Your task to perform on an android device: see creations saved in the google photos Image 0: 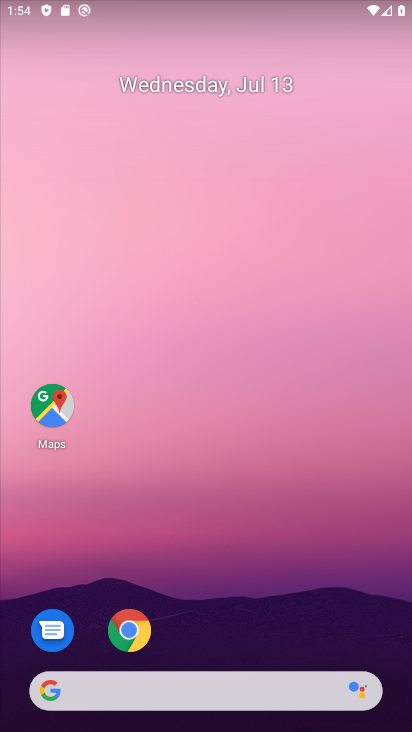
Step 0: drag from (277, 658) to (157, 221)
Your task to perform on an android device: see creations saved in the google photos Image 1: 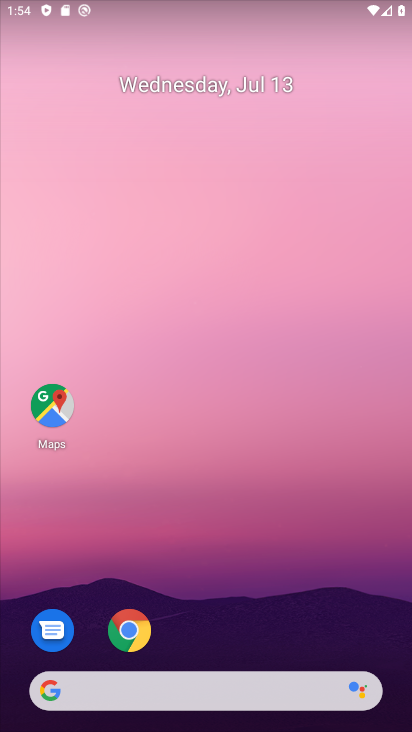
Step 1: drag from (229, 399) to (186, 95)
Your task to perform on an android device: see creations saved in the google photos Image 2: 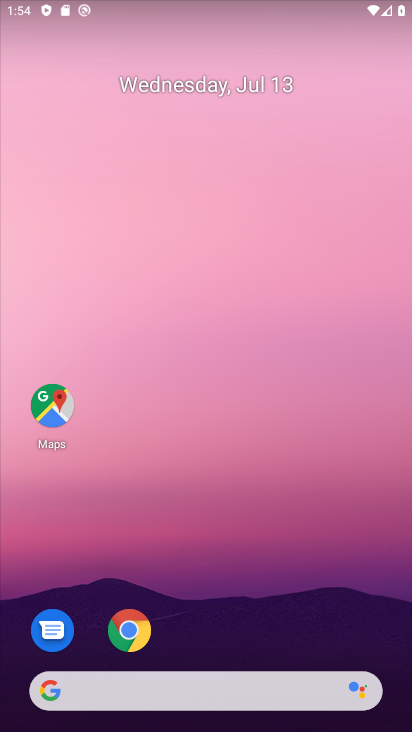
Step 2: drag from (238, 370) to (162, 25)
Your task to perform on an android device: see creations saved in the google photos Image 3: 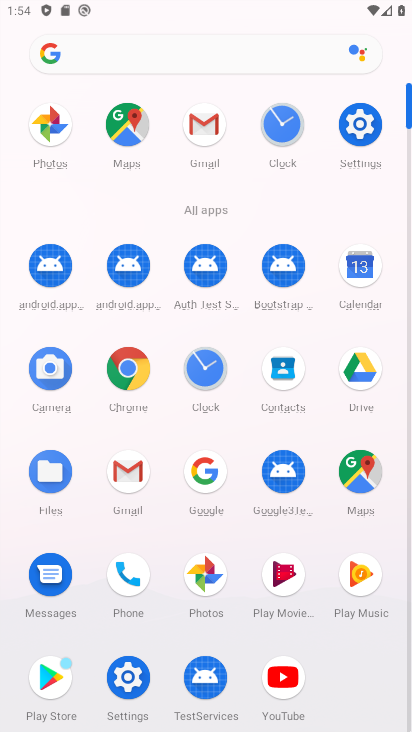
Step 3: drag from (164, 19) to (208, 87)
Your task to perform on an android device: see creations saved in the google photos Image 4: 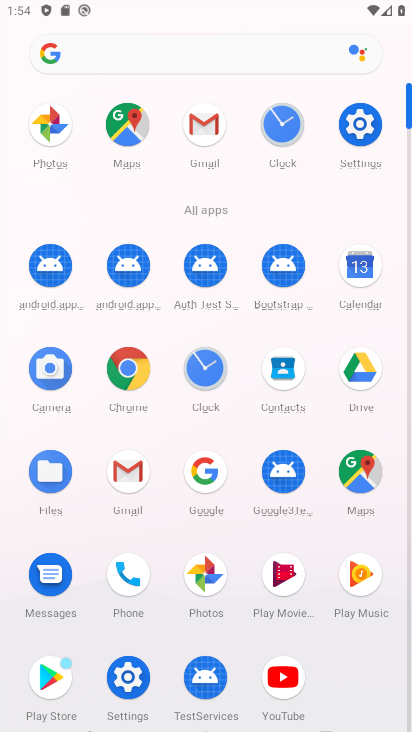
Step 4: click (197, 574)
Your task to perform on an android device: see creations saved in the google photos Image 5: 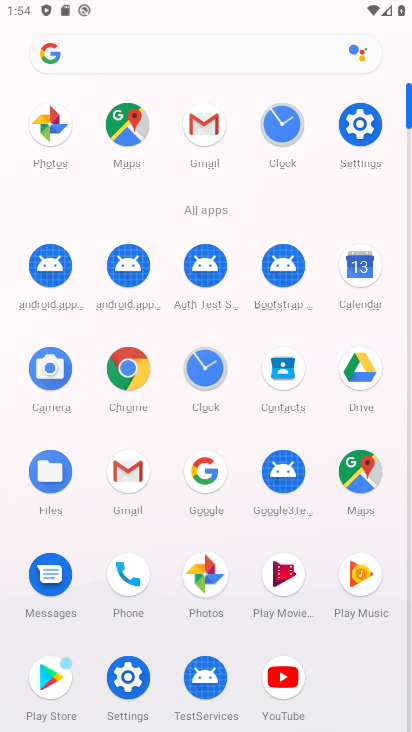
Step 5: click (200, 572)
Your task to perform on an android device: see creations saved in the google photos Image 6: 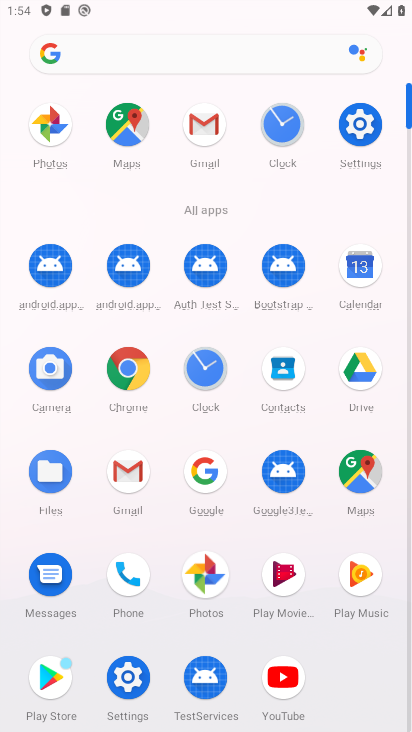
Step 6: click (202, 570)
Your task to perform on an android device: see creations saved in the google photos Image 7: 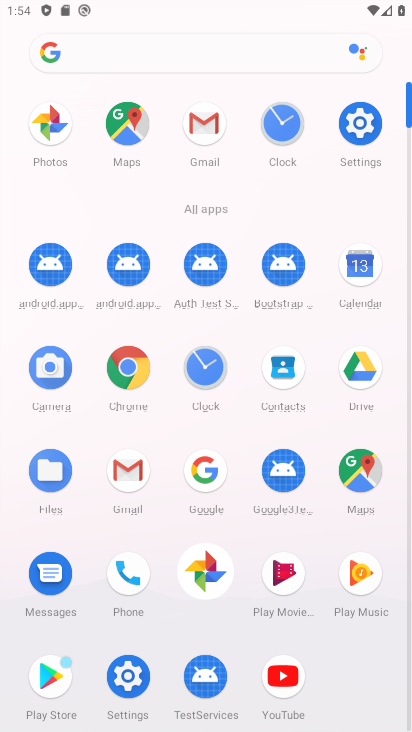
Step 7: click (206, 568)
Your task to perform on an android device: see creations saved in the google photos Image 8: 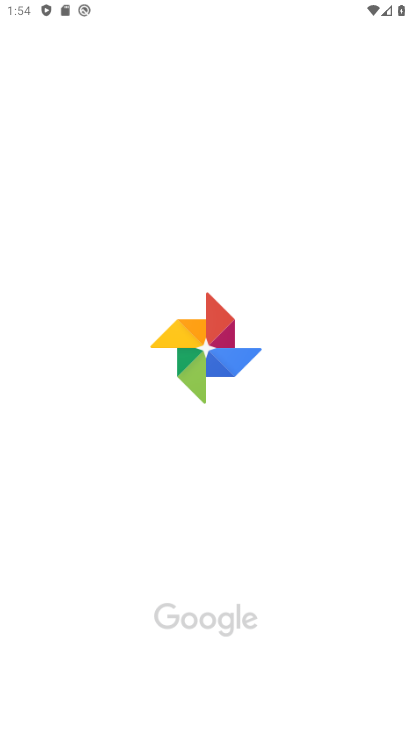
Step 8: click (209, 554)
Your task to perform on an android device: see creations saved in the google photos Image 9: 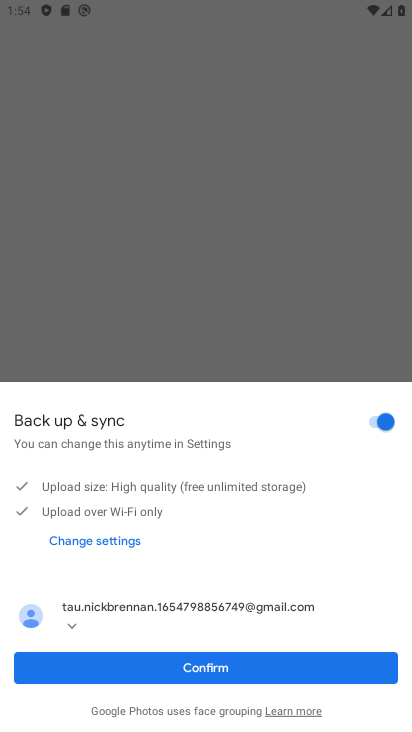
Step 9: click (225, 672)
Your task to perform on an android device: see creations saved in the google photos Image 10: 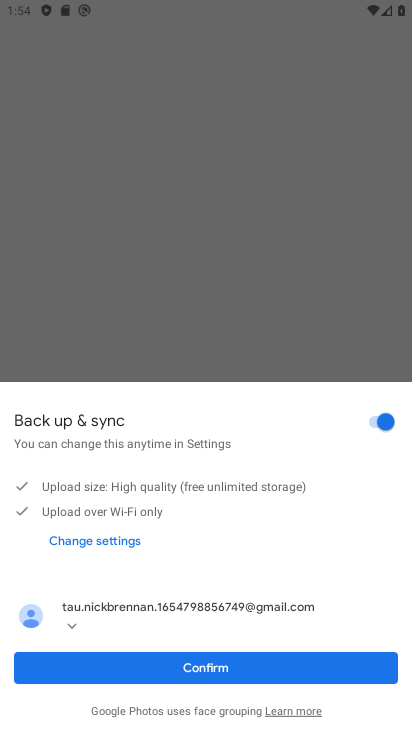
Step 10: click (224, 672)
Your task to perform on an android device: see creations saved in the google photos Image 11: 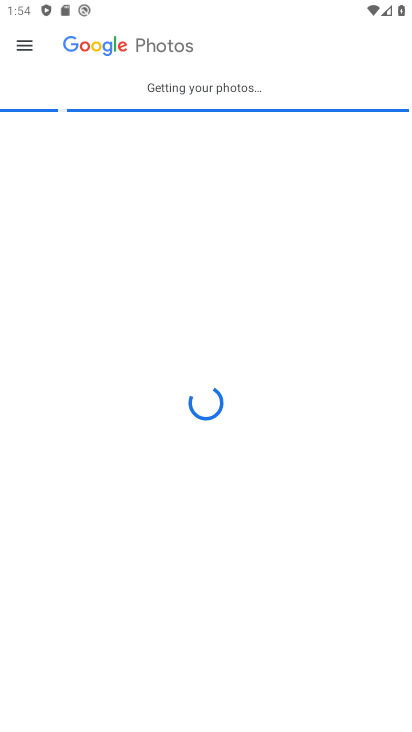
Step 11: click (224, 667)
Your task to perform on an android device: see creations saved in the google photos Image 12: 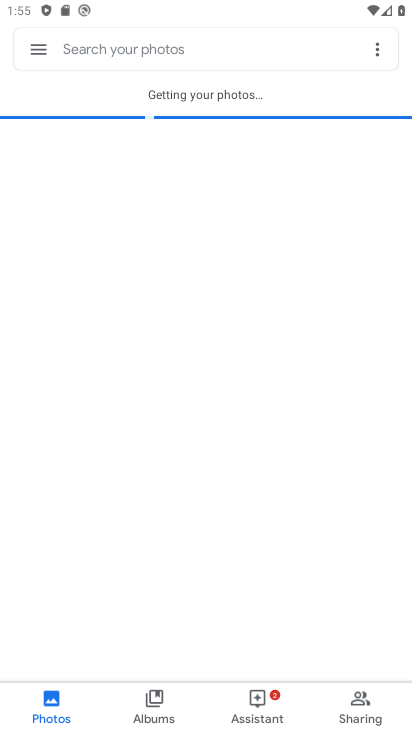
Step 12: task complete